Your task to perform on an android device: turn off airplane mode Image 0: 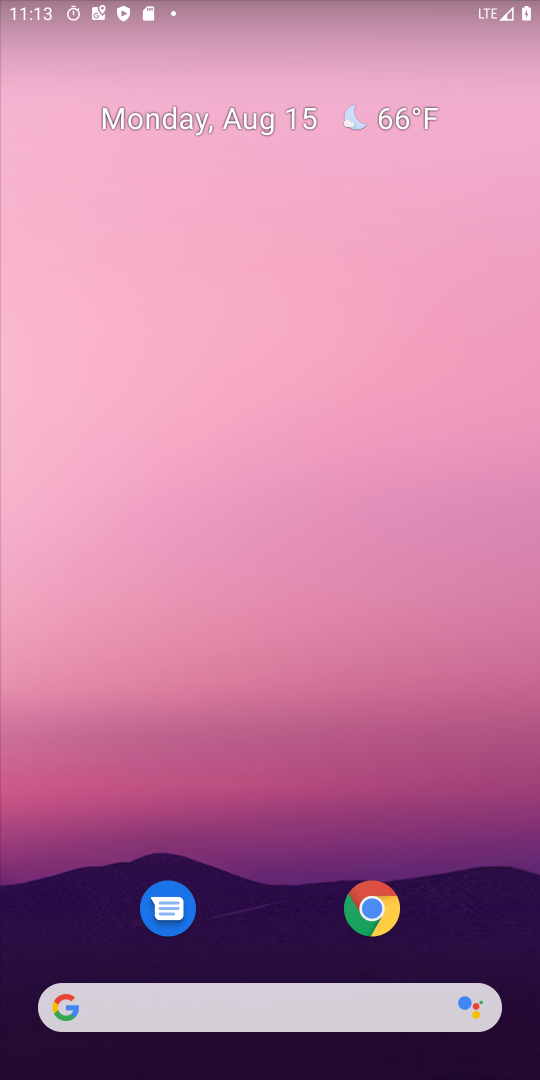
Step 0: drag from (274, 18) to (156, 949)
Your task to perform on an android device: turn off airplane mode Image 1: 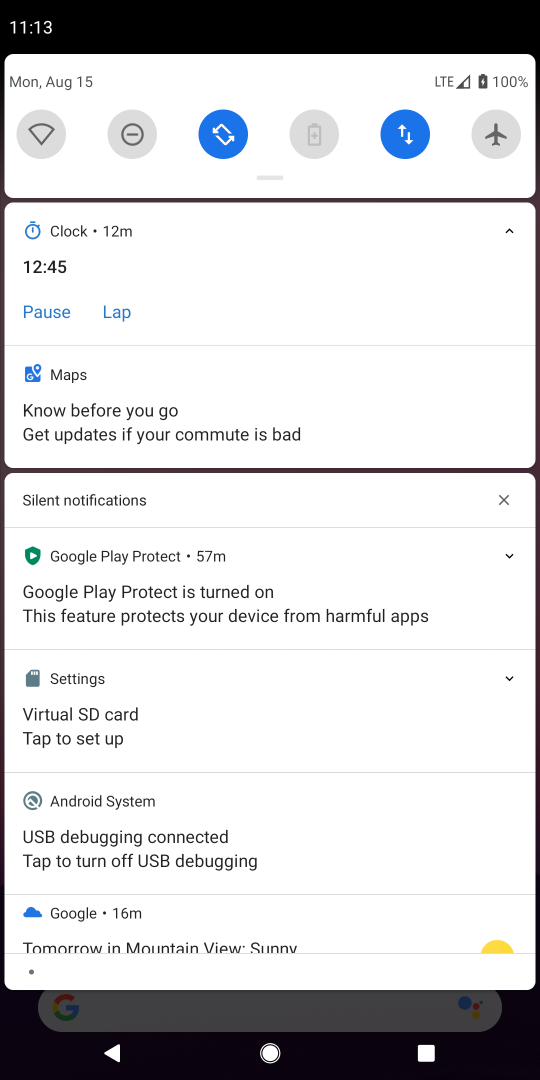
Step 1: task complete